Your task to perform on an android device: turn off javascript in the chrome app Image 0: 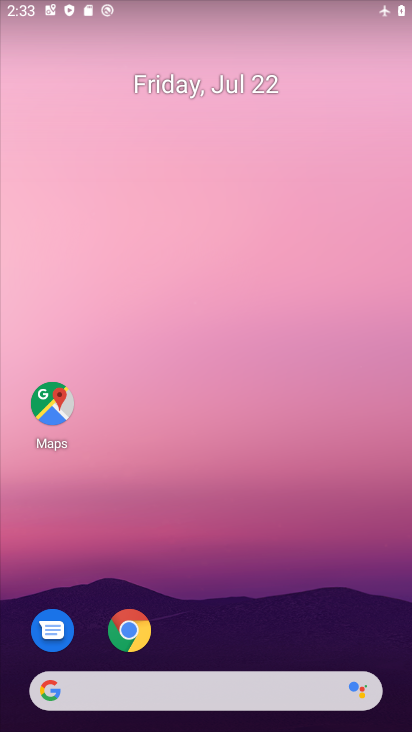
Step 0: drag from (239, 660) to (156, 101)
Your task to perform on an android device: turn off javascript in the chrome app Image 1: 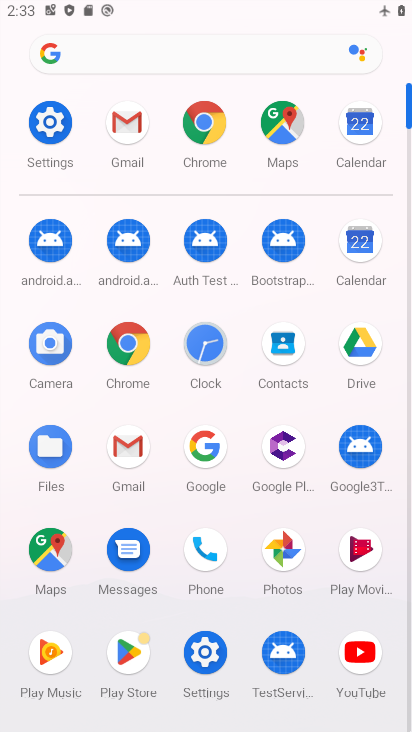
Step 1: click (143, 328)
Your task to perform on an android device: turn off javascript in the chrome app Image 2: 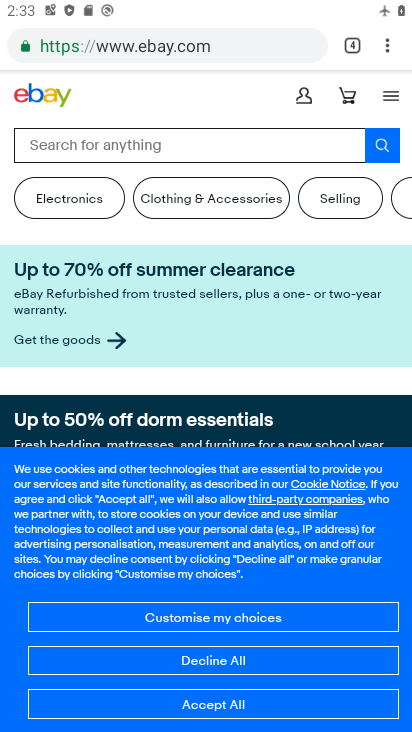
Step 2: drag from (381, 37) to (240, 500)
Your task to perform on an android device: turn off javascript in the chrome app Image 3: 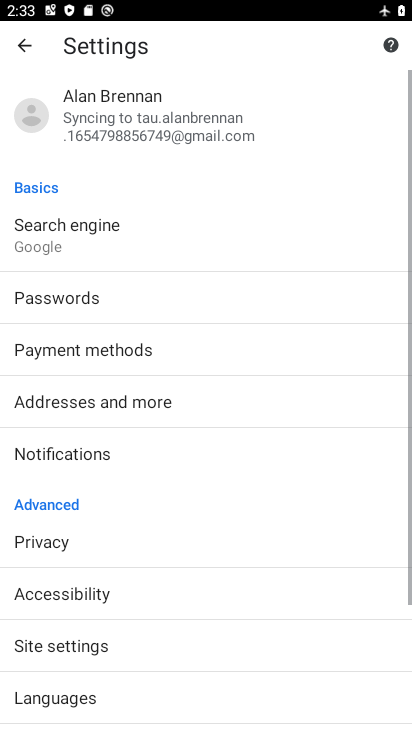
Step 3: drag from (109, 628) to (67, 194)
Your task to perform on an android device: turn off javascript in the chrome app Image 4: 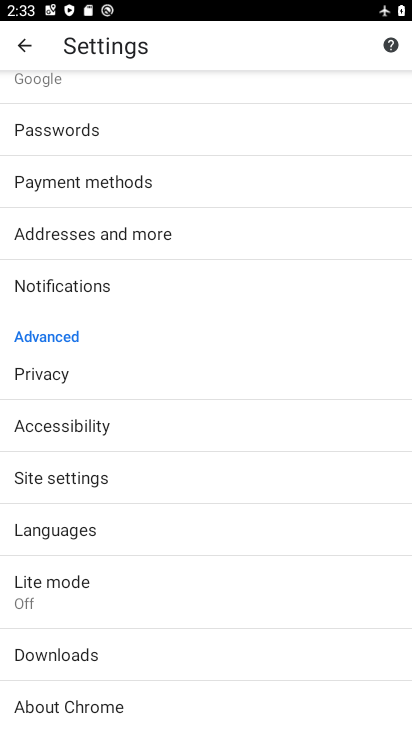
Step 4: click (61, 477)
Your task to perform on an android device: turn off javascript in the chrome app Image 5: 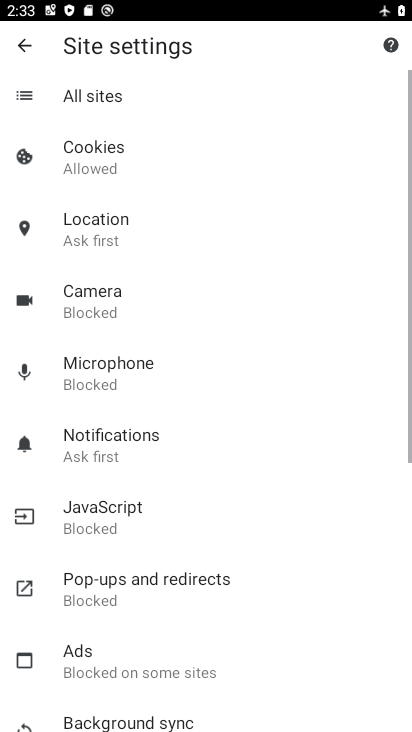
Step 5: click (109, 514)
Your task to perform on an android device: turn off javascript in the chrome app Image 6: 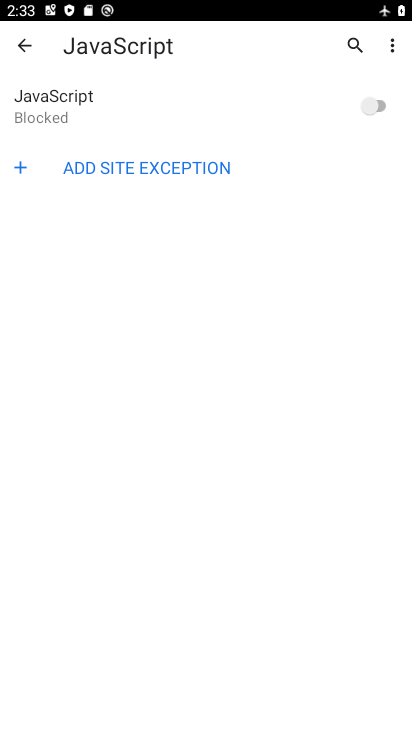
Step 6: task complete